Your task to perform on an android device: change notifications settings Image 0: 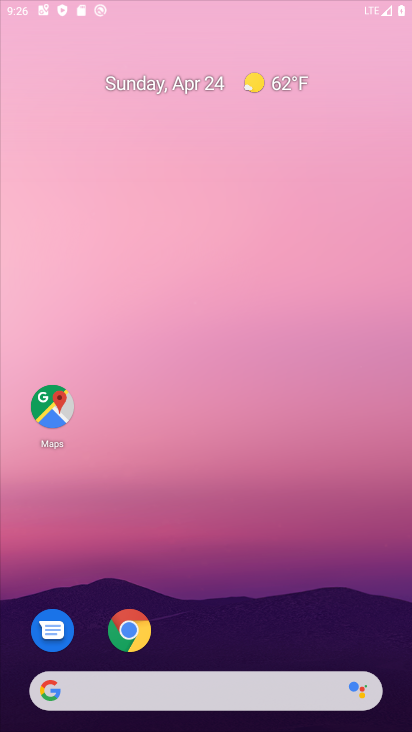
Step 0: drag from (255, 541) to (265, 2)
Your task to perform on an android device: change notifications settings Image 1: 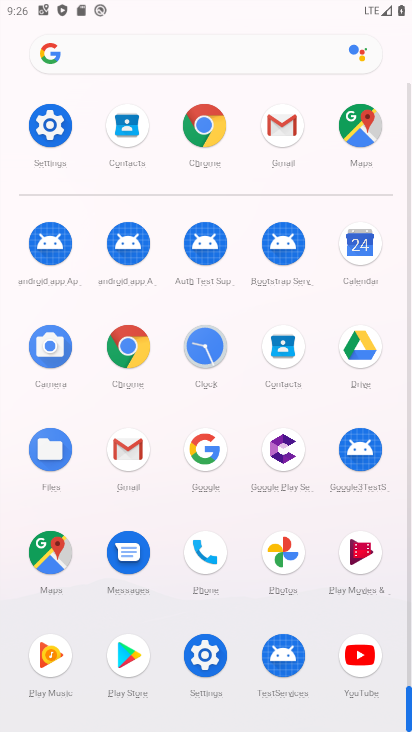
Step 1: drag from (3, 554) to (24, 259)
Your task to perform on an android device: change notifications settings Image 2: 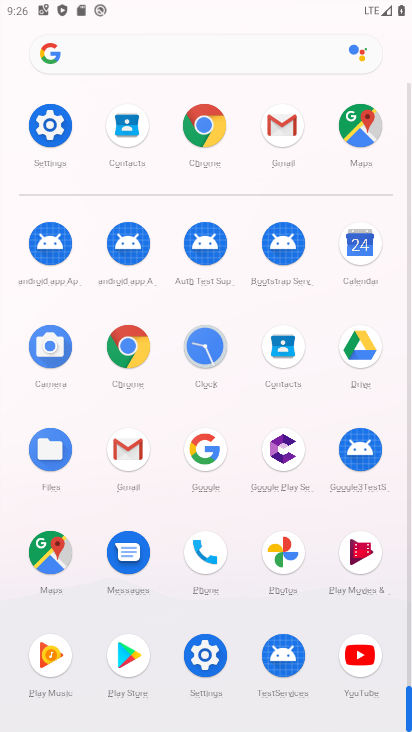
Step 2: click (205, 653)
Your task to perform on an android device: change notifications settings Image 3: 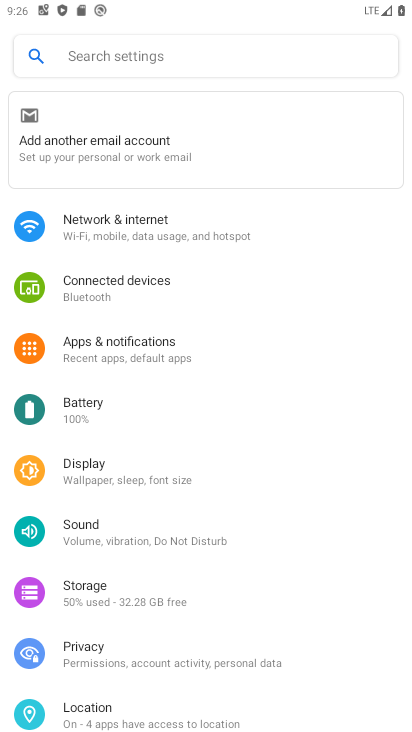
Step 3: drag from (303, 536) to (330, 183)
Your task to perform on an android device: change notifications settings Image 4: 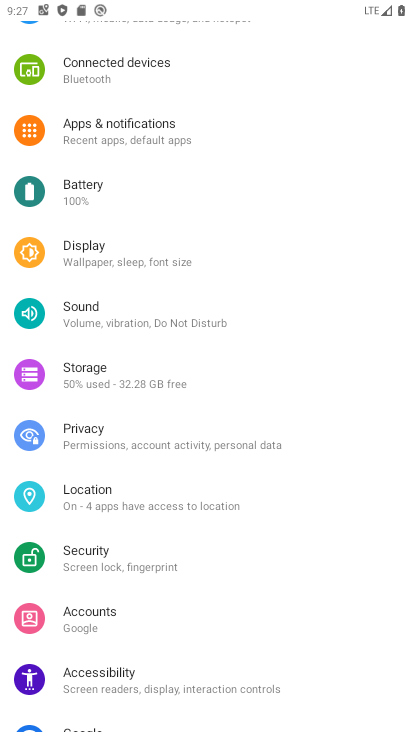
Step 4: click (169, 130)
Your task to perform on an android device: change notifications settings Image 5: 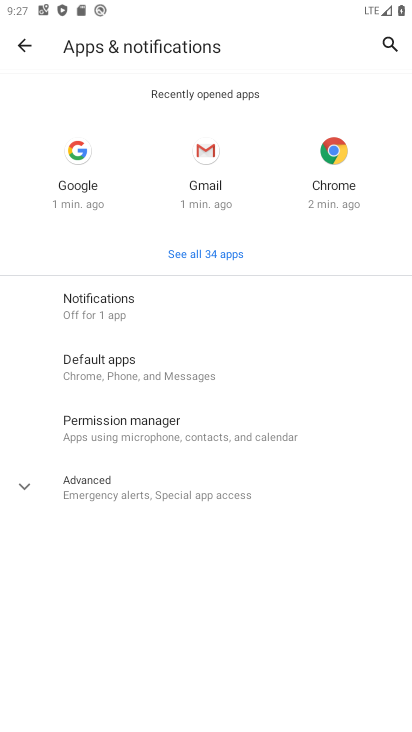
Step 5: click (18, 484)
Your task to perform on an android device: change notifications settings Image 6: 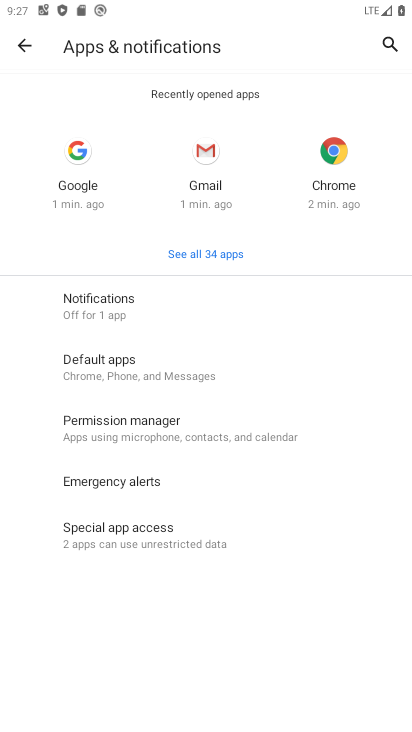
Step 6: click (132, 302)
Your task to perform on an android device: change notifications settings Image 7: 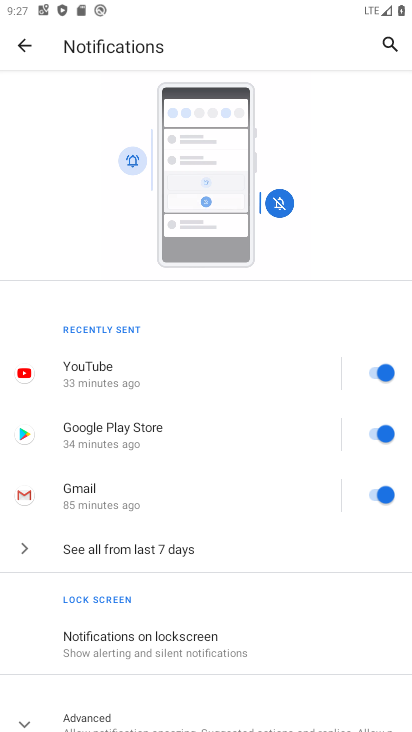
Step 7: drag from (216, 461) to (232, 127)
Your task to perform on an android device: change notifications settings Image 8: 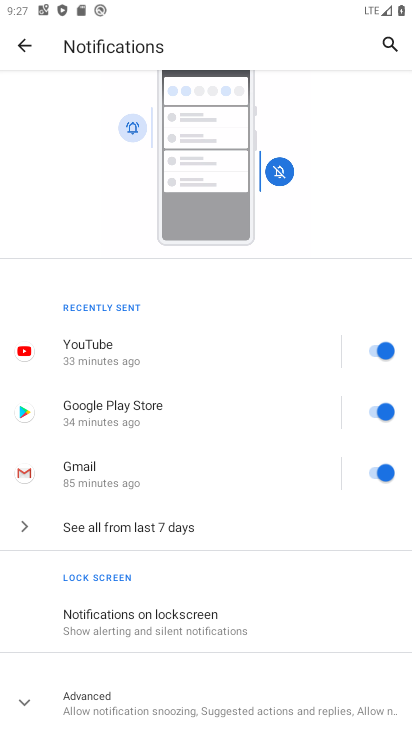
Step 8: click (40, 701)
Your task to perform on an android device: change notifications settings Image 9: 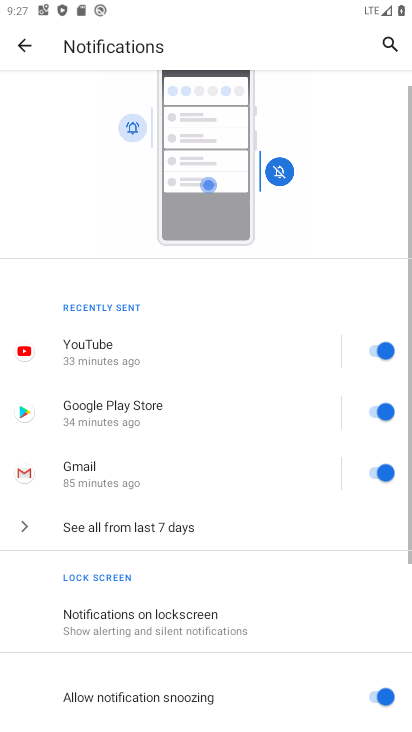
Step 9: drag from (243, 567) to (297, 173)
Your task to perform on an android device: change notifications settings Image 10: 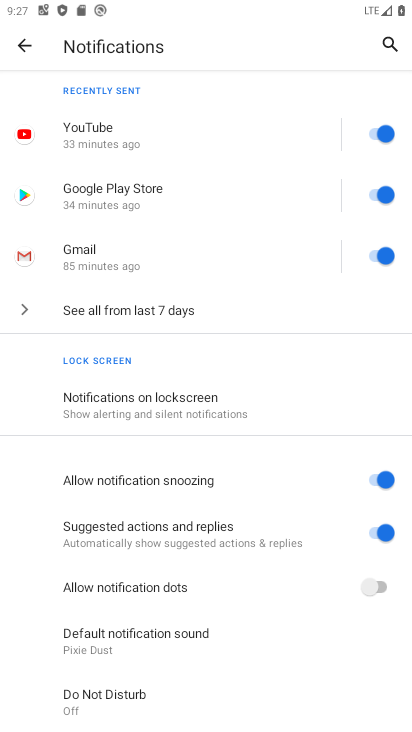
Step 10: drag from (233, 560) to (240, 141)
Your task to perform on an android device: change notifications settings Image 11: 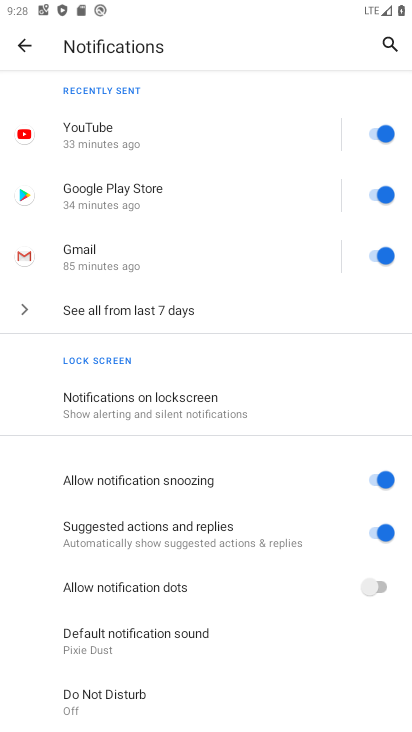
Step 11: click (154, 402)
Your task to perform on an android device: change notifications settings Image 12: 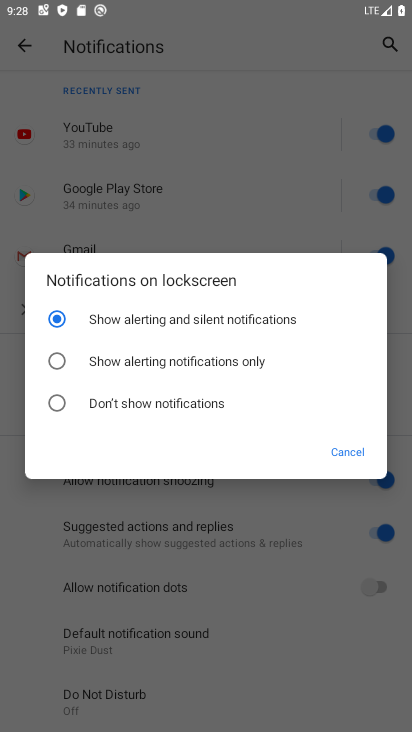
Step 12: click (122, 352)
Your task to perform on an android device: change notifications settings Image 13: 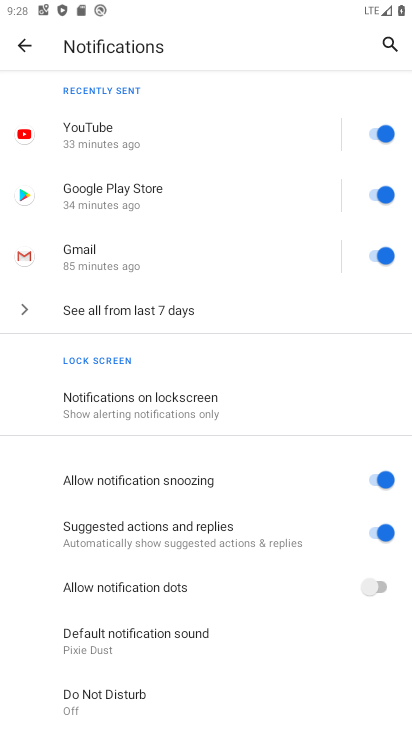
Step 13: task complete